Your task to perform on an android device: open app "DuckDuckGo Privacy Browser" (install if not already installed) Image 0: 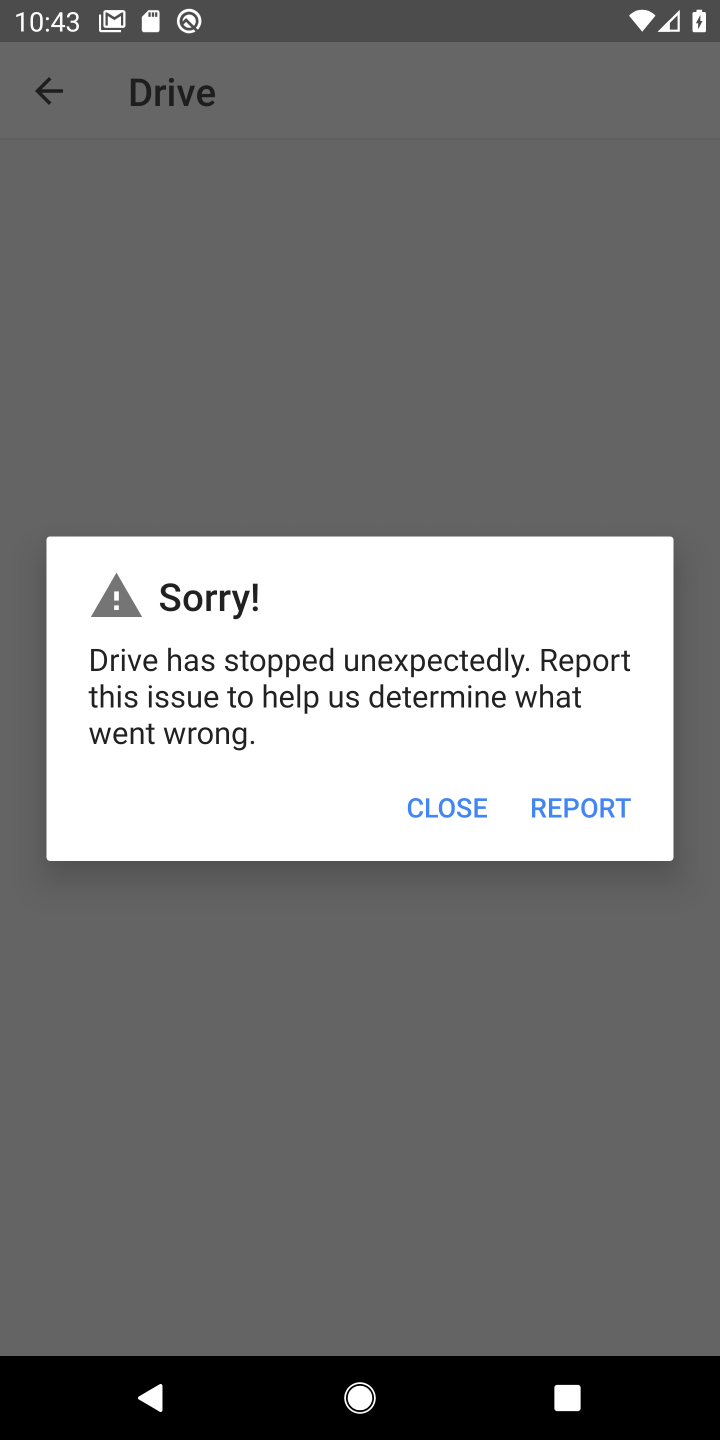
Step 0: press home button
Your task to perform on an android device: open app "DuckDuckGo Privacy Browser" (install if not already installed) Image 1: 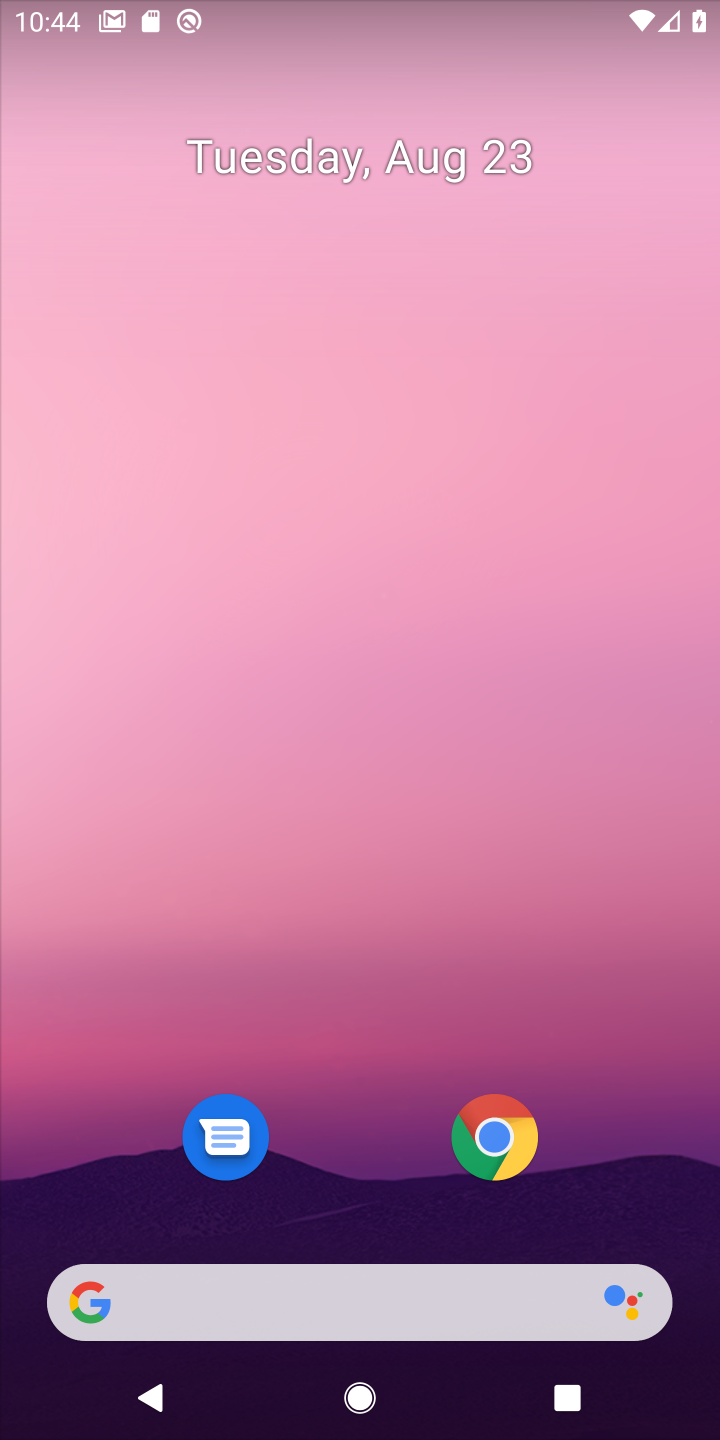
Step 1: drag from (313, 847) to (386, 25)
Your task to perform on an android device: open app "DuckDuckGo Privacy Browser" (install if not already installed) Image 2: 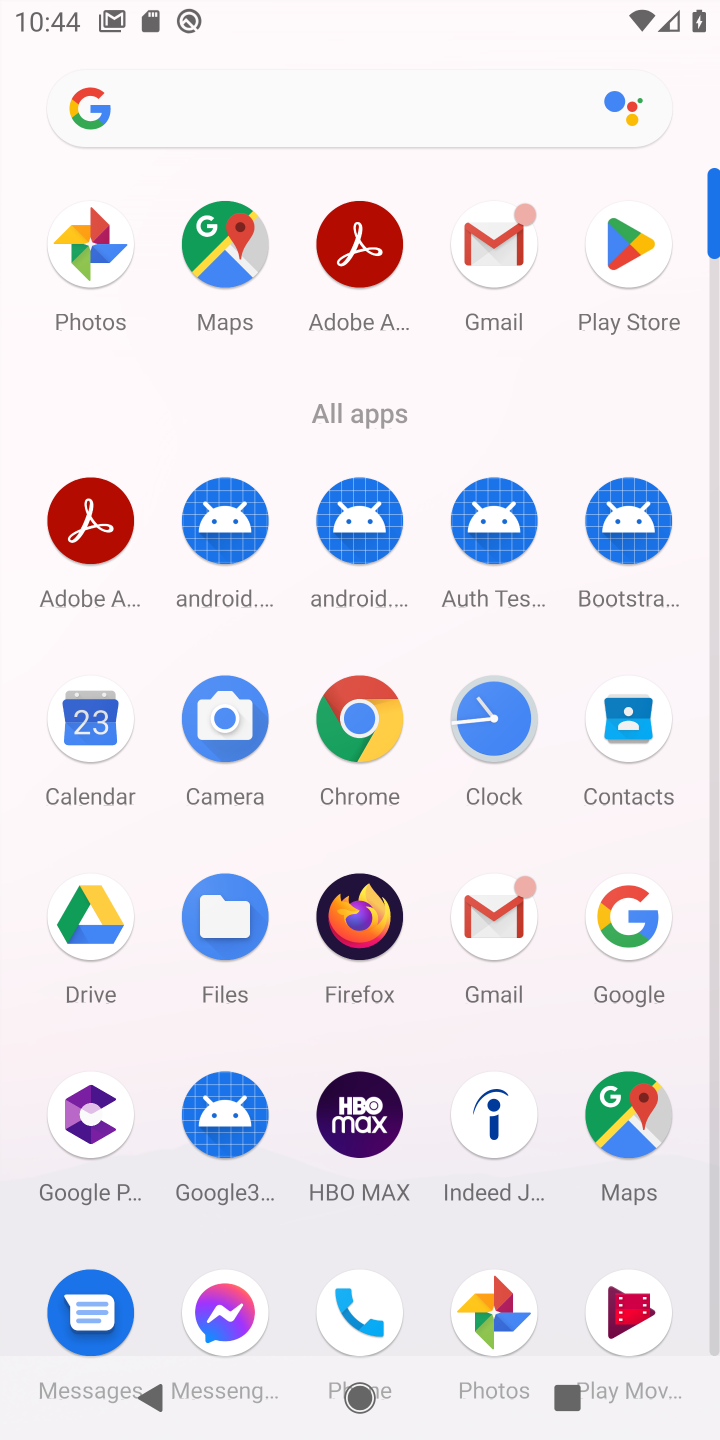
Step 2: click (652, 219)
Your task to perform on an android device: open app "DuckDuckGo Privacy Browser" (install if not already installed) Image 3: 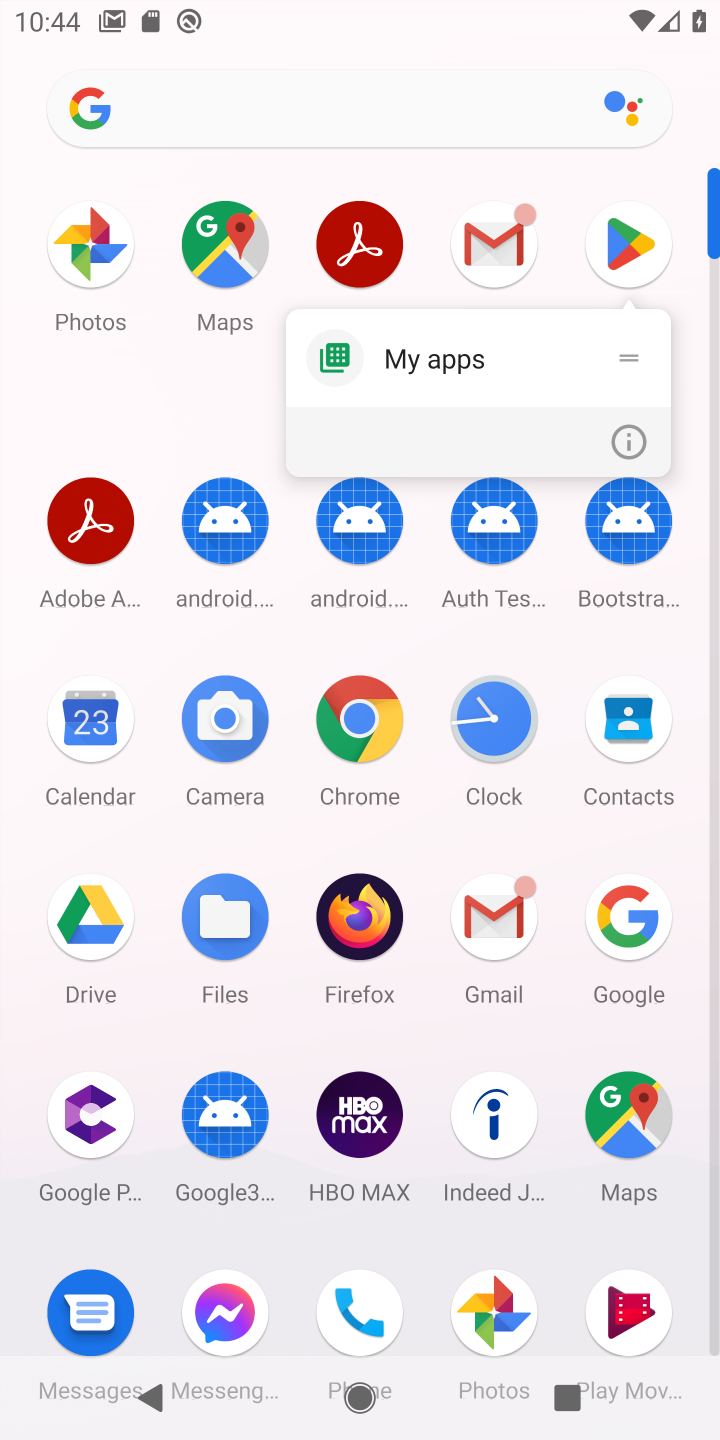
Step 3: click (618, 254)
Your task to perform on an android device: open app "DuckDuckGo Privacy Browser" (install if not already installed) Image 4: 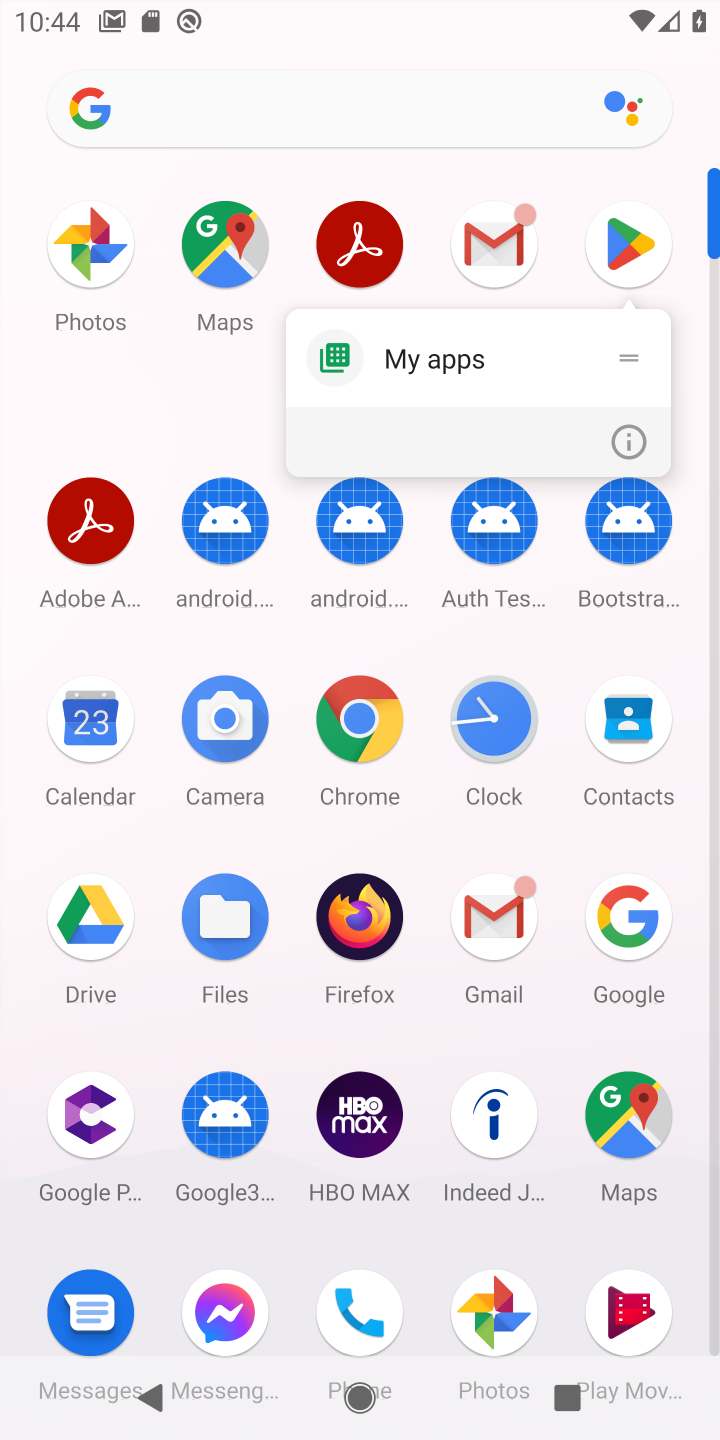
Step 4: click (618, 261)
Your task to perform on an android device: open app "DuckDuckGo Privacy Browser" (install if not already installed) Image 5: 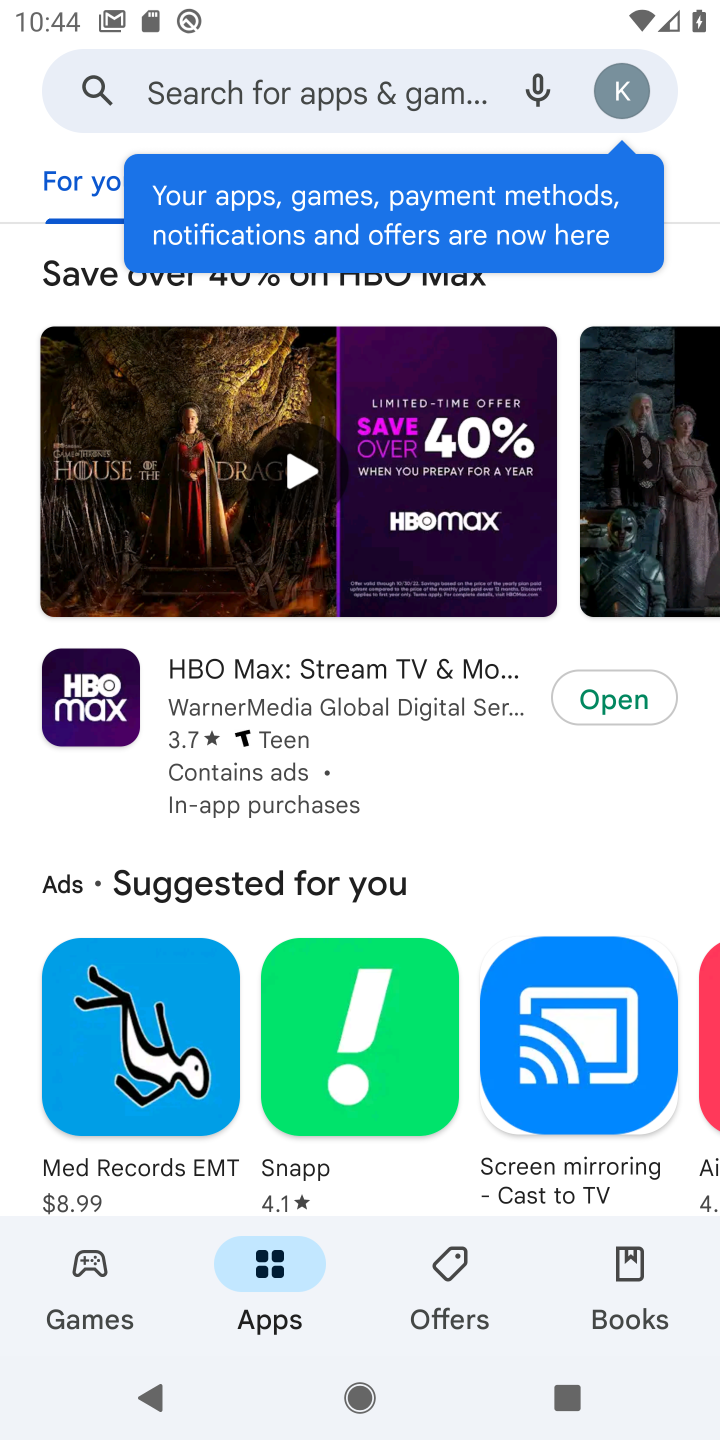
Step 5: click (297, 95)
Your task to perform on an android device: open app "DuckDuckGo Privacy Browser" (install if not already installed) Image 6: 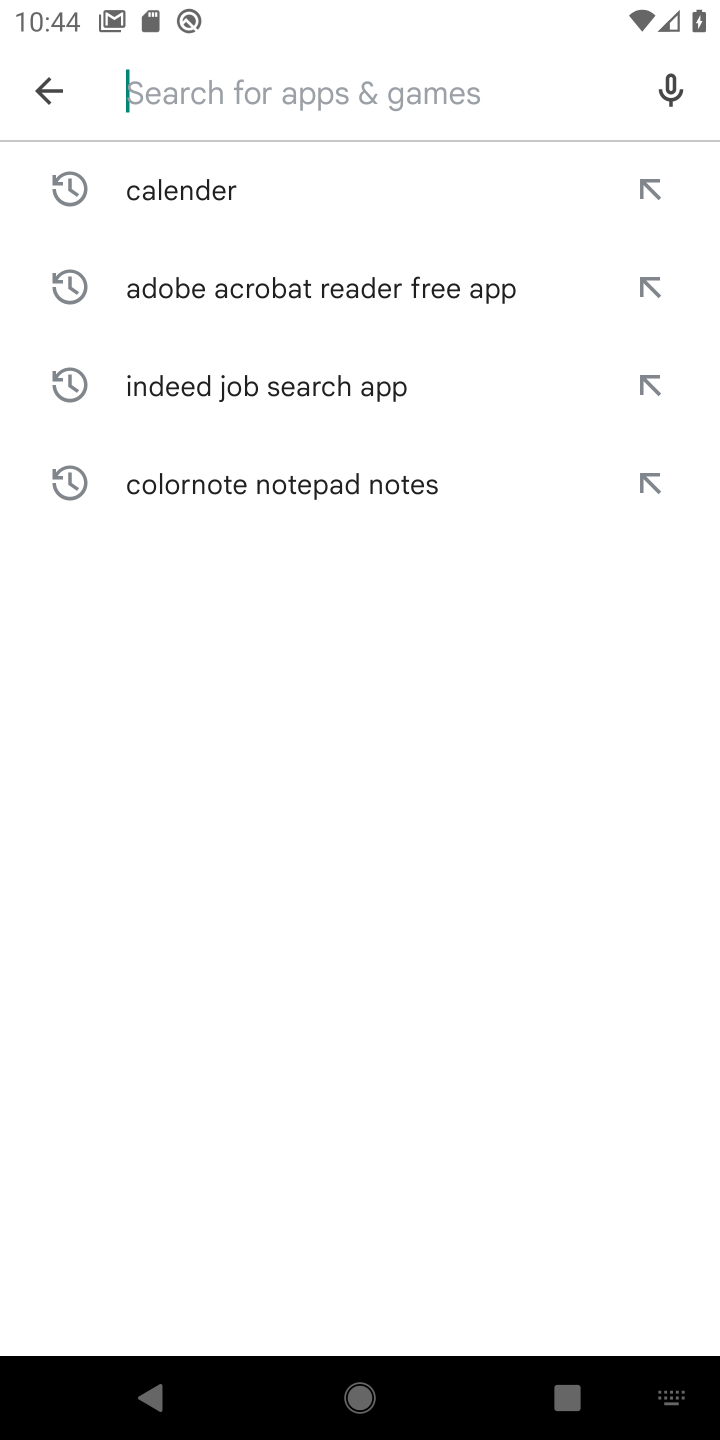
Step 6: type "duckduckgo"
Your task to perform on an android device: open app "DuckDuckGo Privacy Browser" (install if not already installed) Image 7: 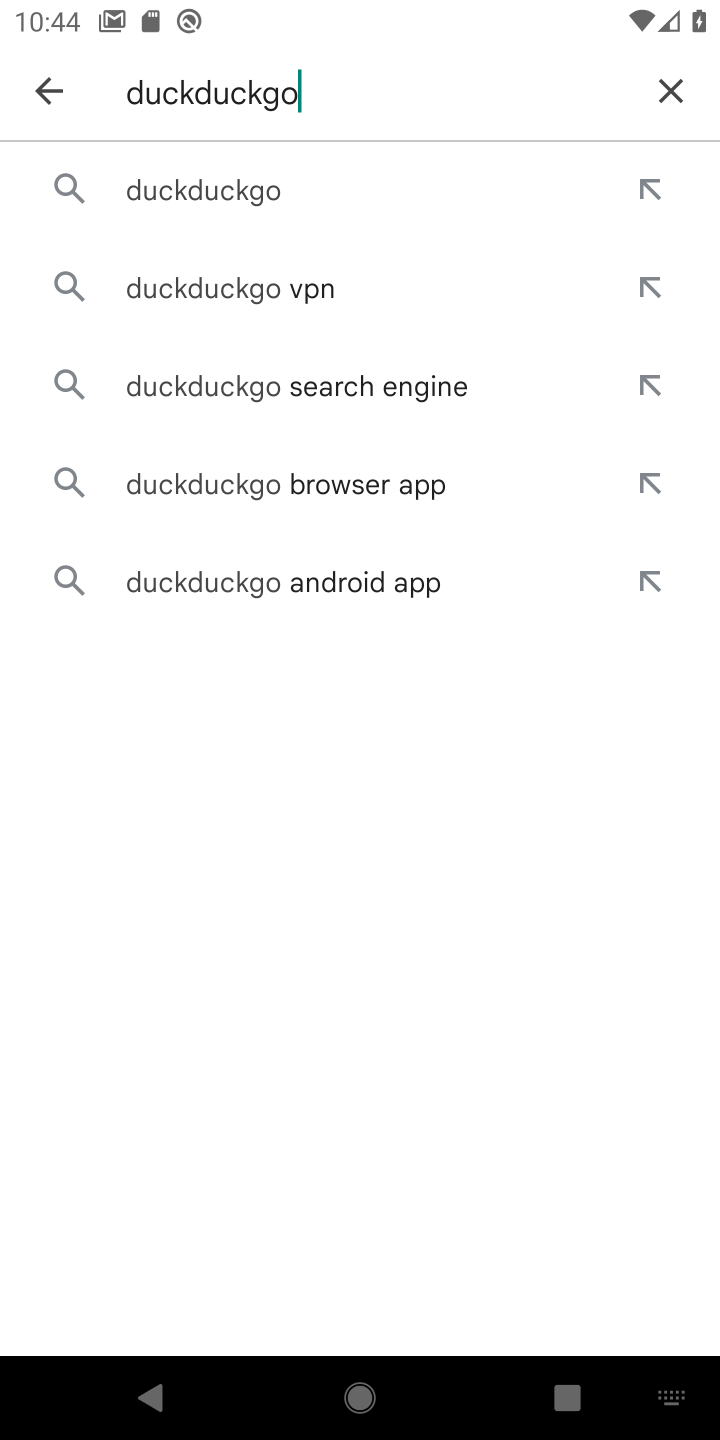
Step 7: click (183, 189)
Your task to perform on an android device: open app "DuckDuckGo Privacy Browser" (install if not already installed) Image 8: 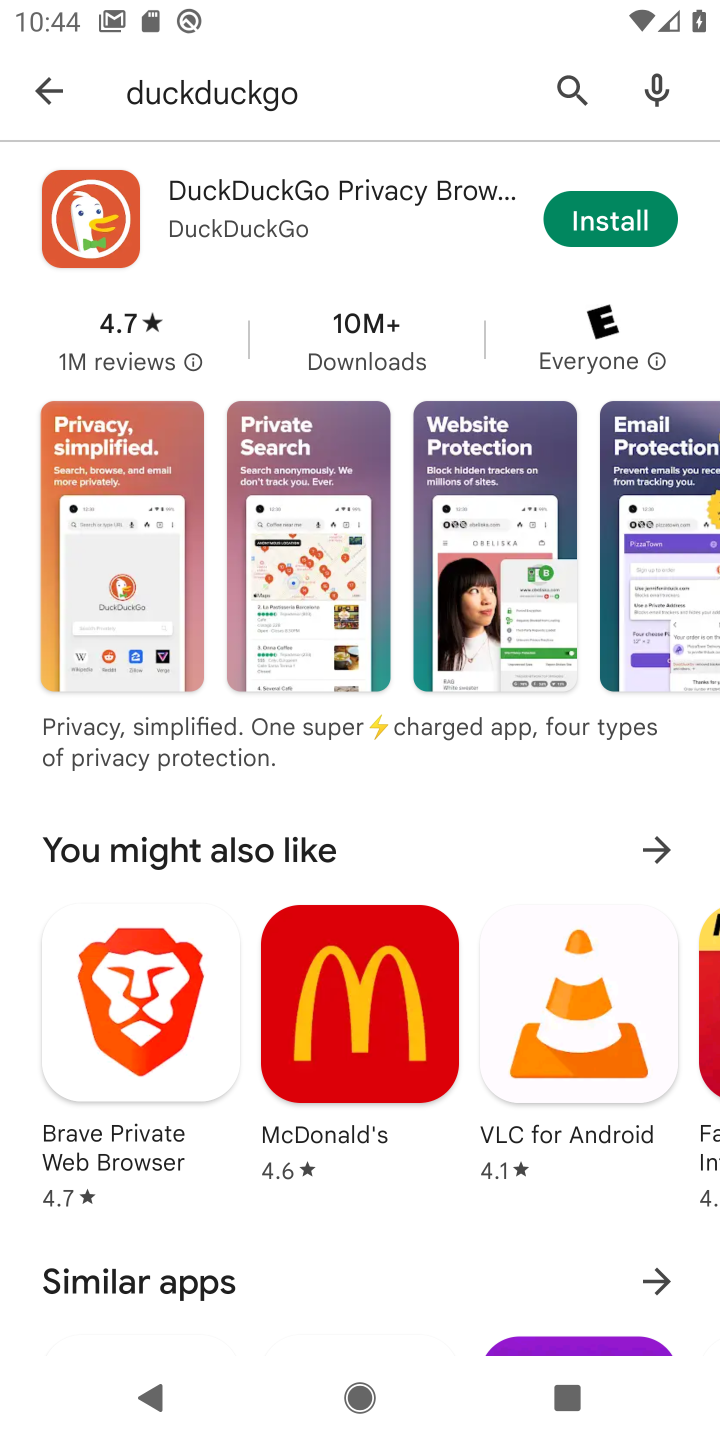
Step 8: click (612, 213)
Your task to perform on an android device: open app "DuckDuckGo Privacy Browser" (install if not already installed) Image 9: 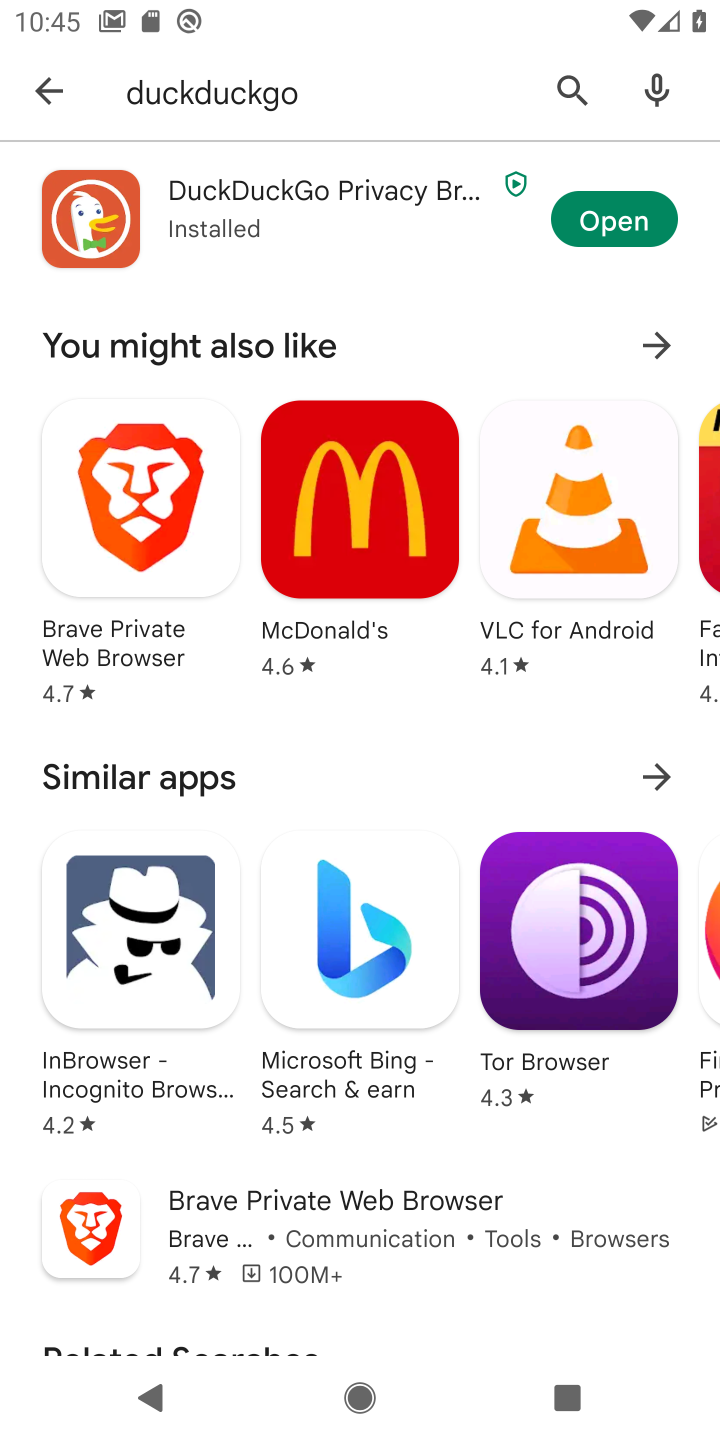
Step 9: click (606, 130)
Your task to perform on an android device: open app "DuckDuckGo Privacy Browser" (install if not already installed) Image 10: 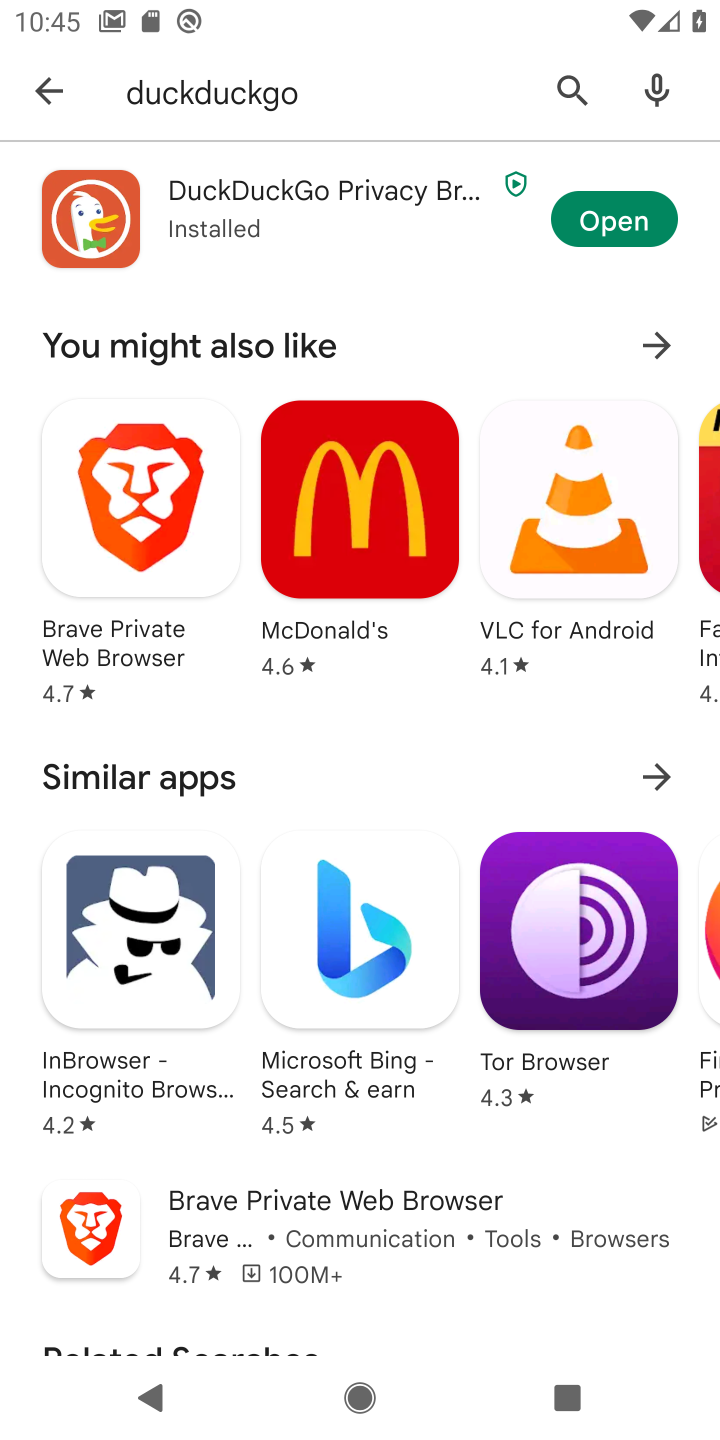
Step 10: click (609, 207)
Your task to perform on an android device: open app "DuckDuckGo Privacy Browser" (install if not already installed) Image 11: 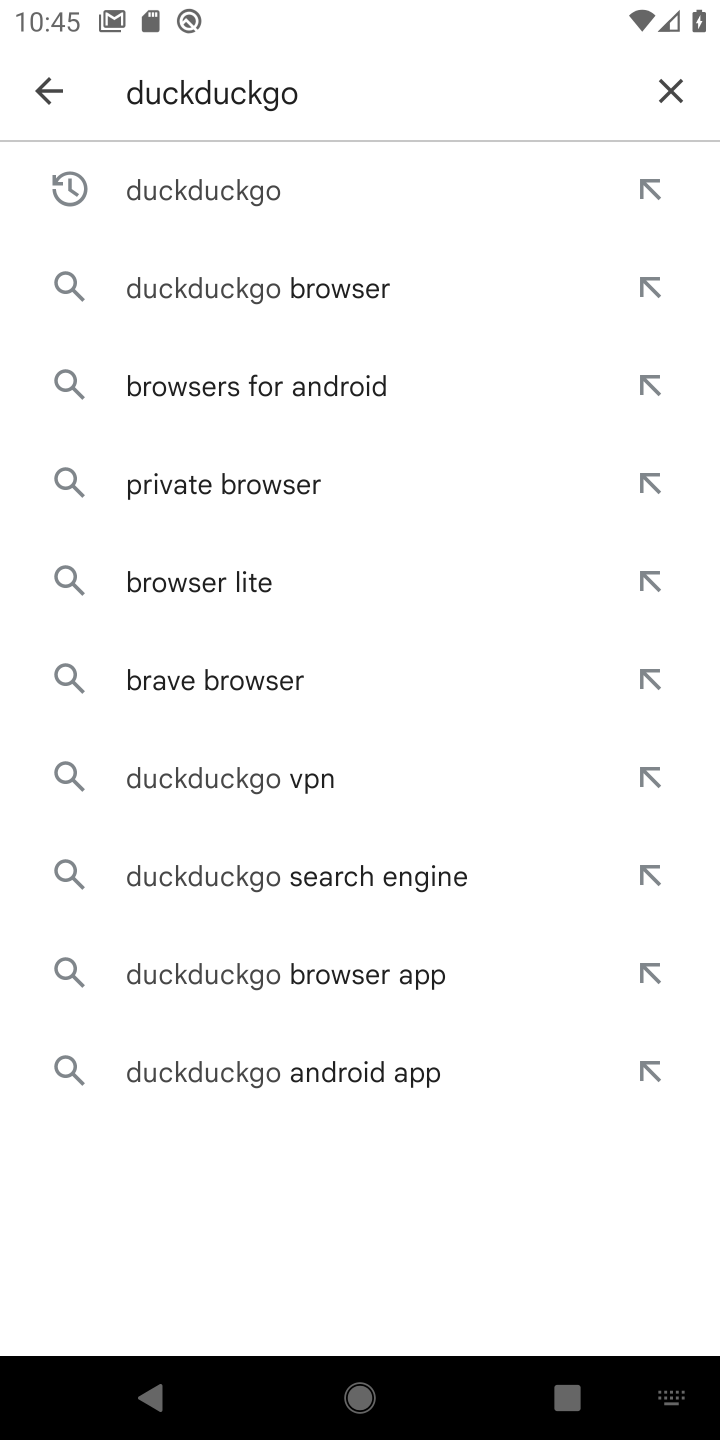
Step 11: click (50, 105)
Your task to perform on an android device: open app "DuckDuckGo Privacy Browser" (install if not already installed) Image 12: 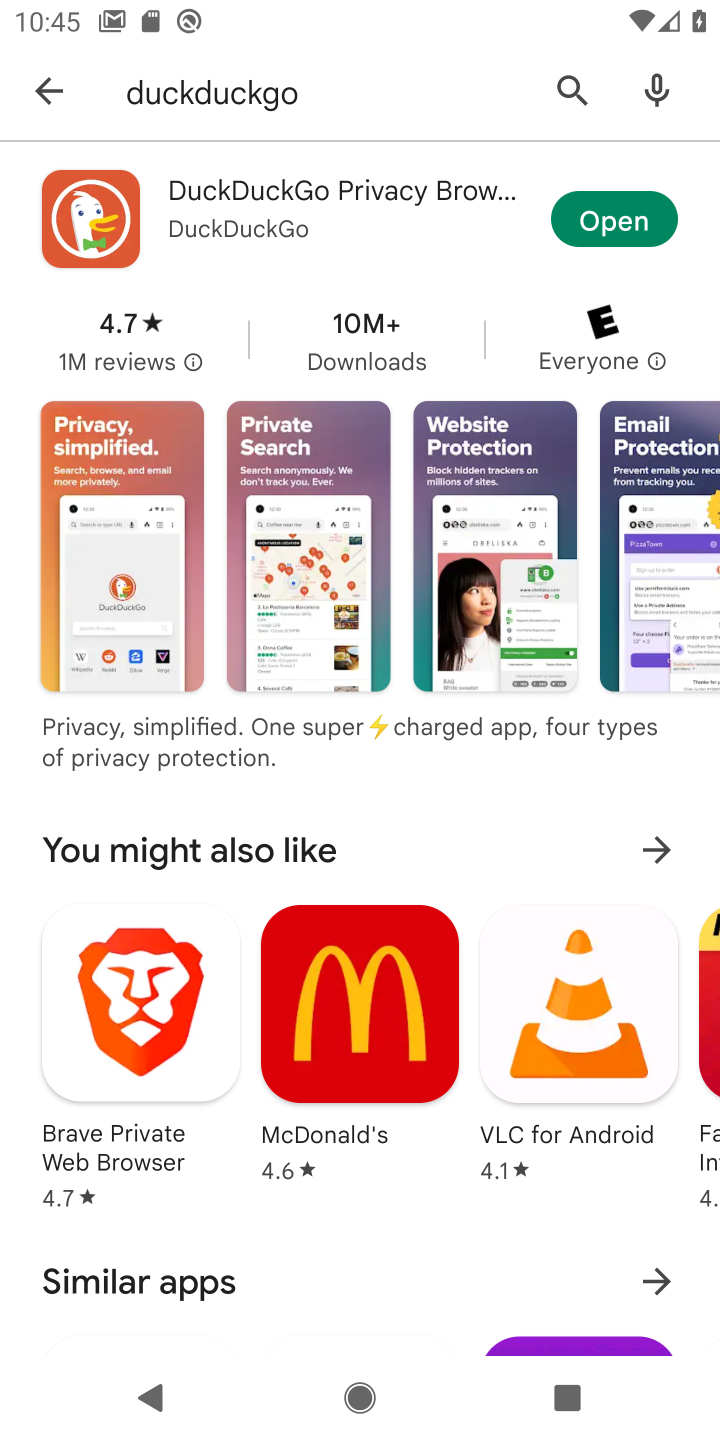
Step 12: click (634, 220)
Your task to perform on an android device: open app "DuckDuckGo Privacy Browser" (install if not already installed) Image 13: 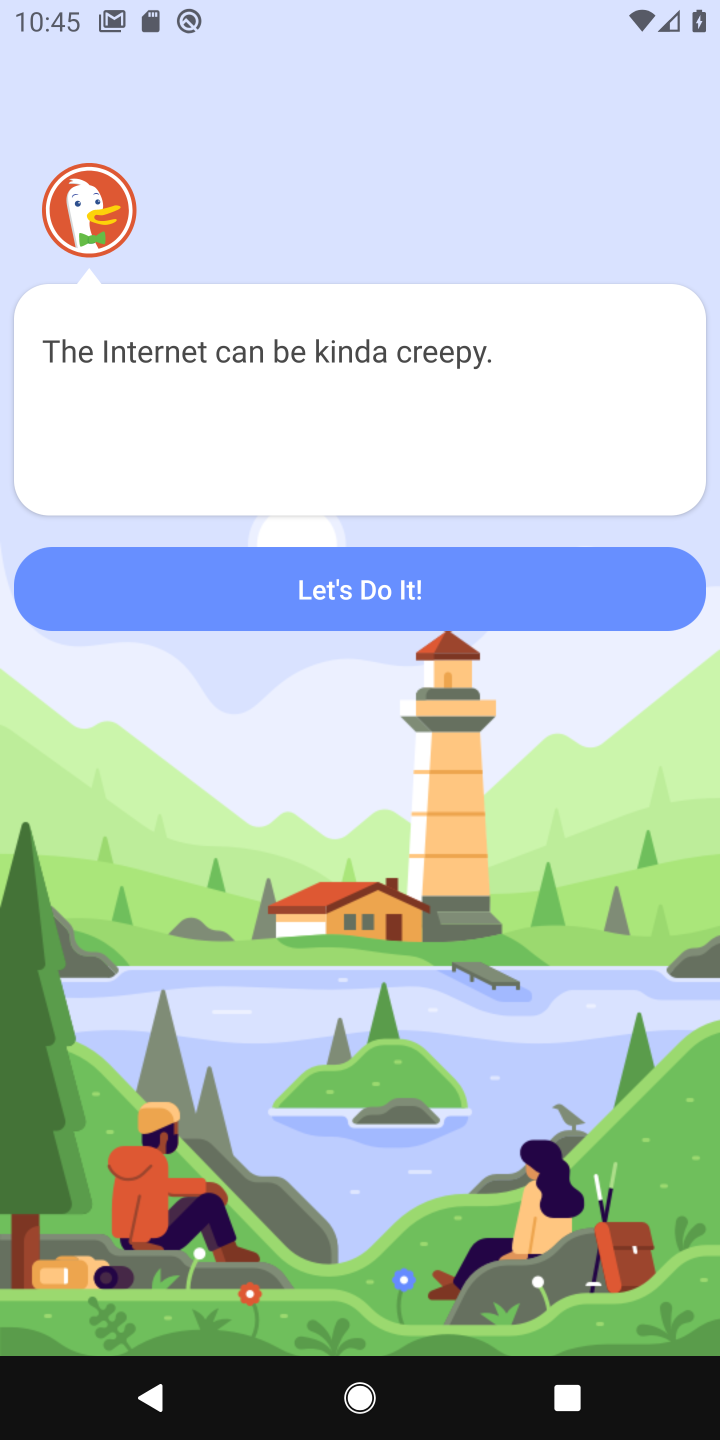
Step 13: click (442, 564)
Your task to perform on an android device: open app "DuckDuckGo Privacy Browser" (install if not already installed) Image 14: 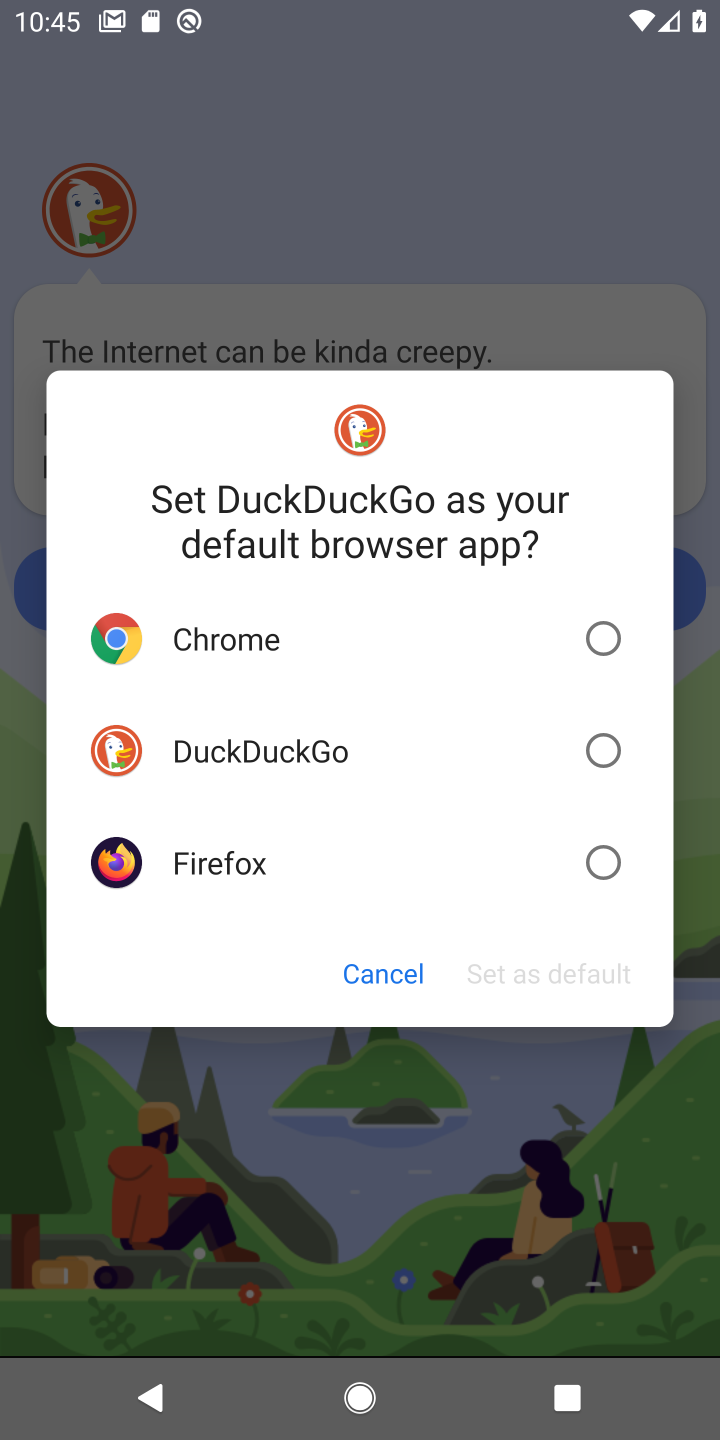
Step 14: click (307, 761)
Your task to perform on an android device: open app "DuckDuckGo Privacy Browser" (install if not already installed) Image 15: 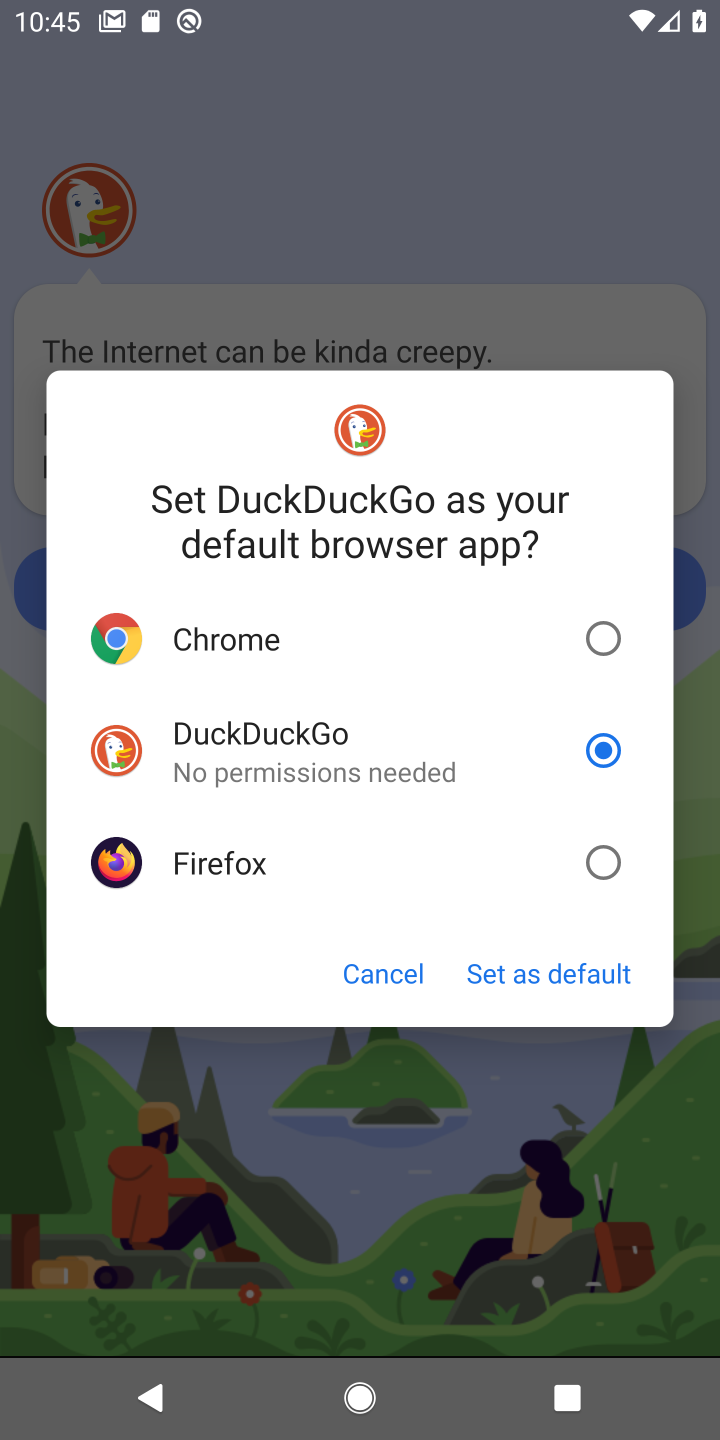
Step 15: click (550, 969)
Your task to perform on an android device: open app "DuckDuckGo Privacy Browser" (install if not already installed) Image 16: 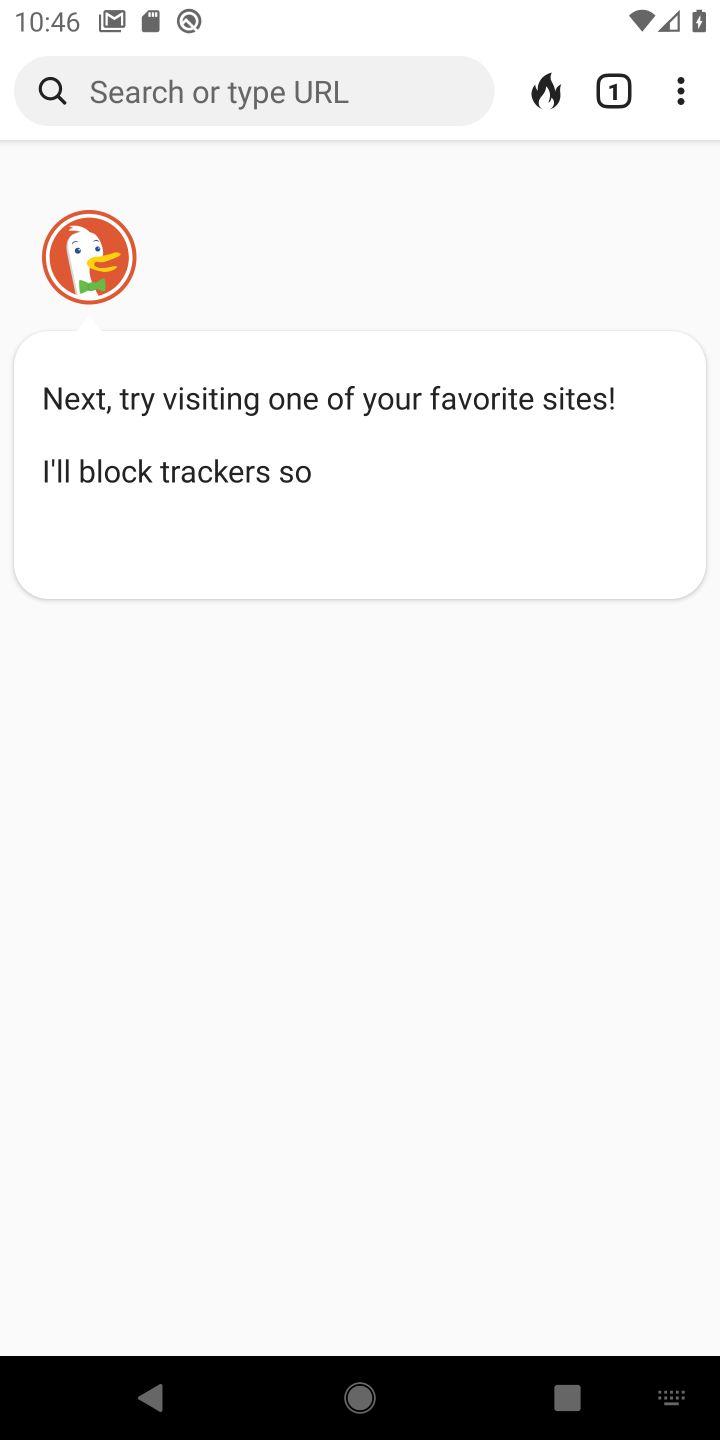
Step 16: task complete